Your task to perform on an android device: Search for razer deathadder on target.com, select the first entry, and add it to the cart. Image 0: 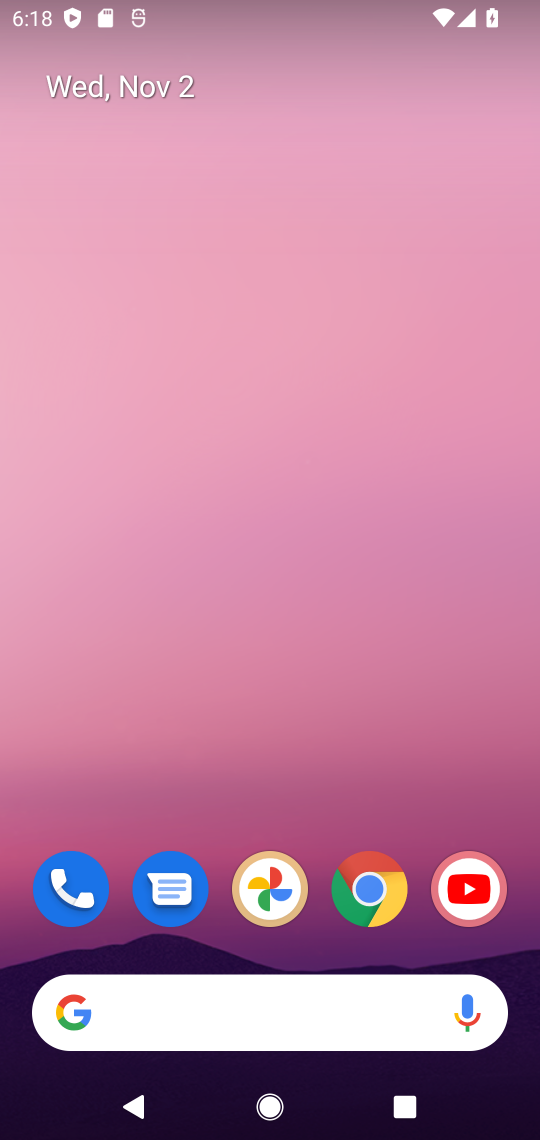
Step 0: click (377, 902)
Your task to perform on an android device: Search for razer deathadder on target.com, select the first entry, and add it to the cart. Image 1: 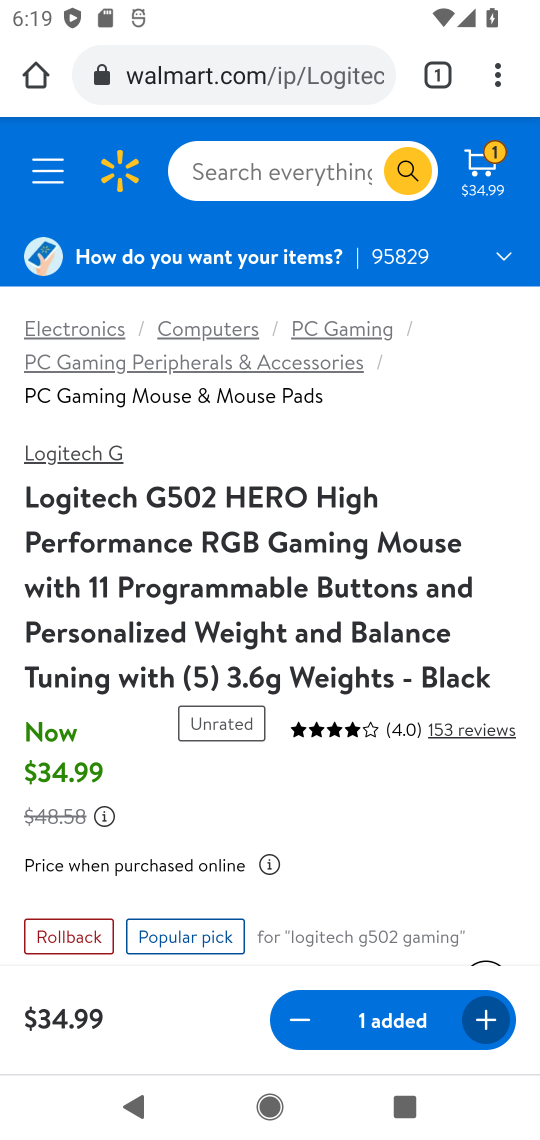
Step 1: click (285, 73)
Your task to perform on an android device: Search for razer deathadder on target.com, select the first entry, and add it to the cart. Image 2: 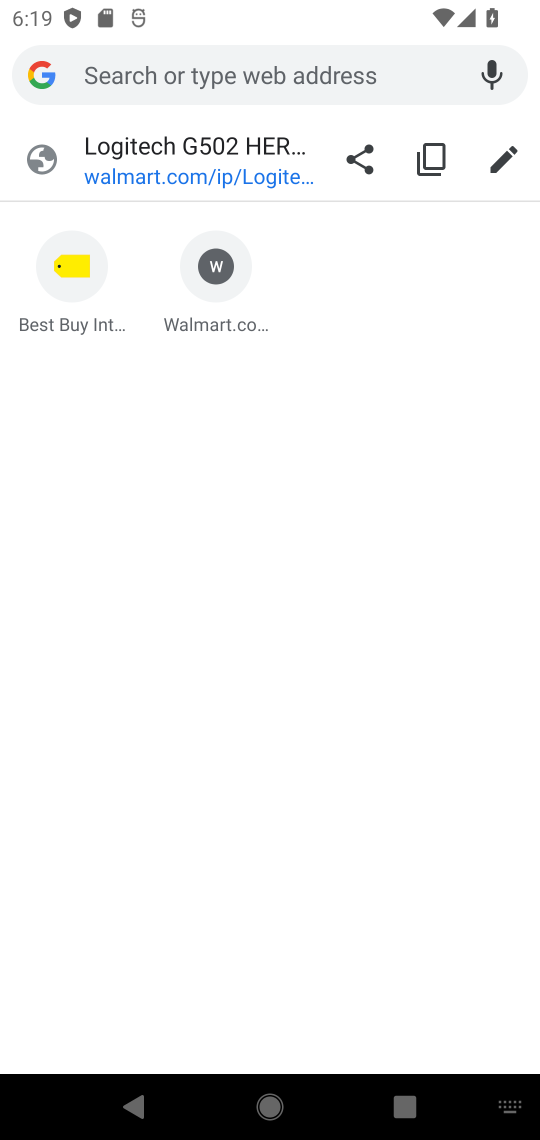
Step 2: press enter
Your task to perform on an android device: Search for razer deathadder on target.com, select the first entry, and add it to the cart. Image 3: 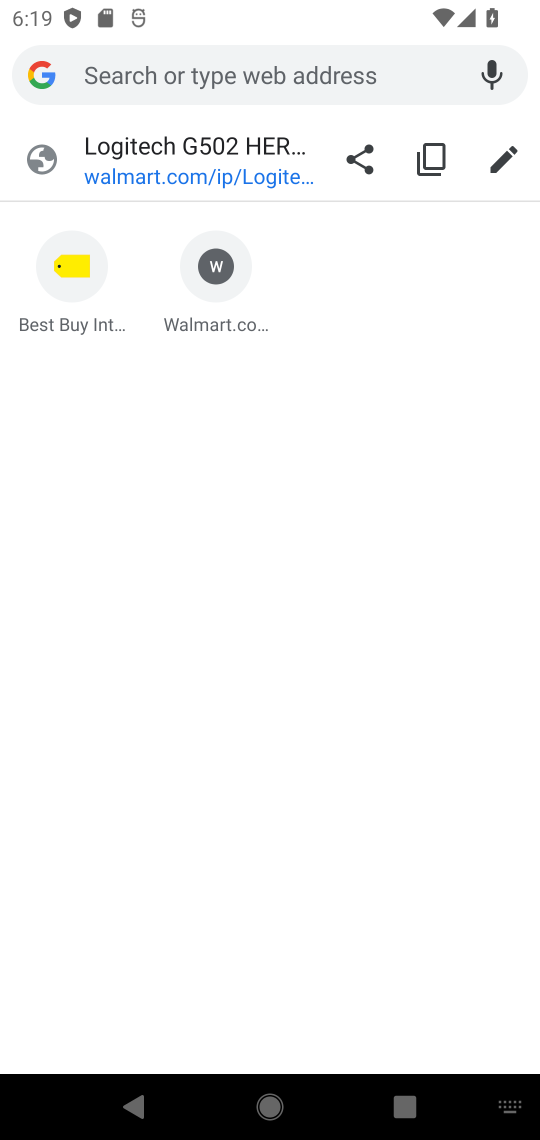
Step 3: type " target.com"
Your task to perform on an android device: Search for razer deathadder on target.com, select the first entry, and add it to the cart. Image 4: 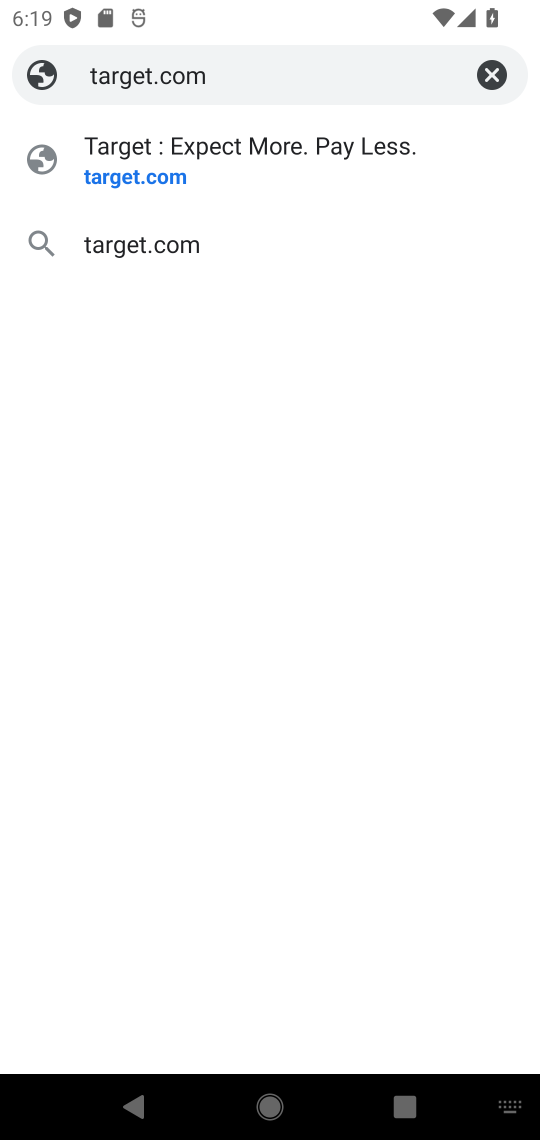
Step 4: click (173, 241)
Your task to perform on an android device: Search for razer deathadder on target.com, select the first entry, and add it to the cart. Image 5: 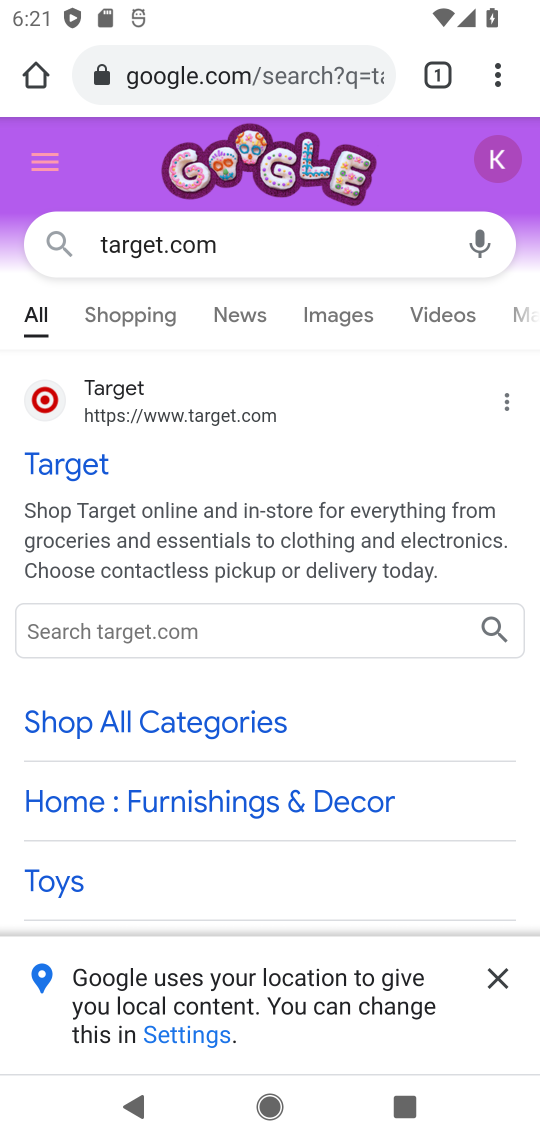
Step 5: click (93, 389)
Your task to perform on an android device: Search for razer deathadder on target.com, select the first entry, and add it to the cart. Image 6: 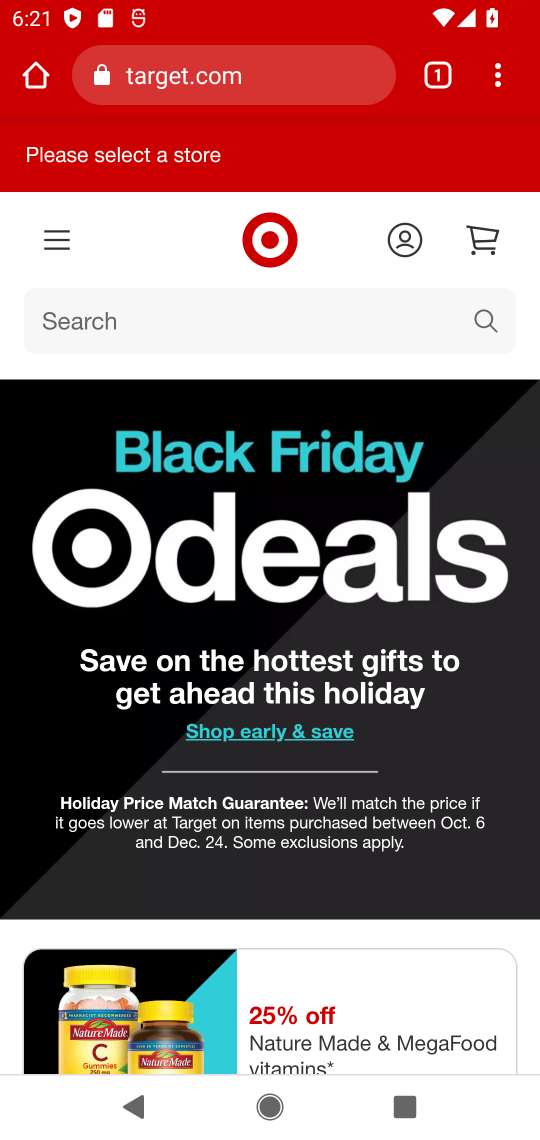
Step 6: click (484, 320)
Your task to perform on an android device: Search for razer deathadder on target.com, select the first entry, and add it to the cart. Image 7: 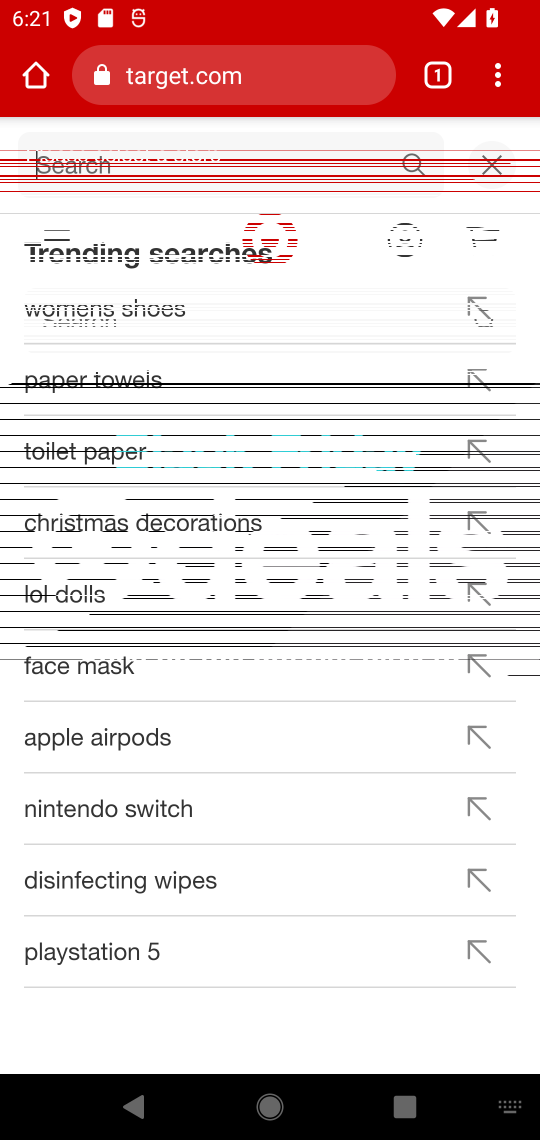
Step 7: type "razer deathadder"
Your task to perform on an android device: Search for razer deathadder on target.com, select the first entry, and add it to the cart. Image 8: 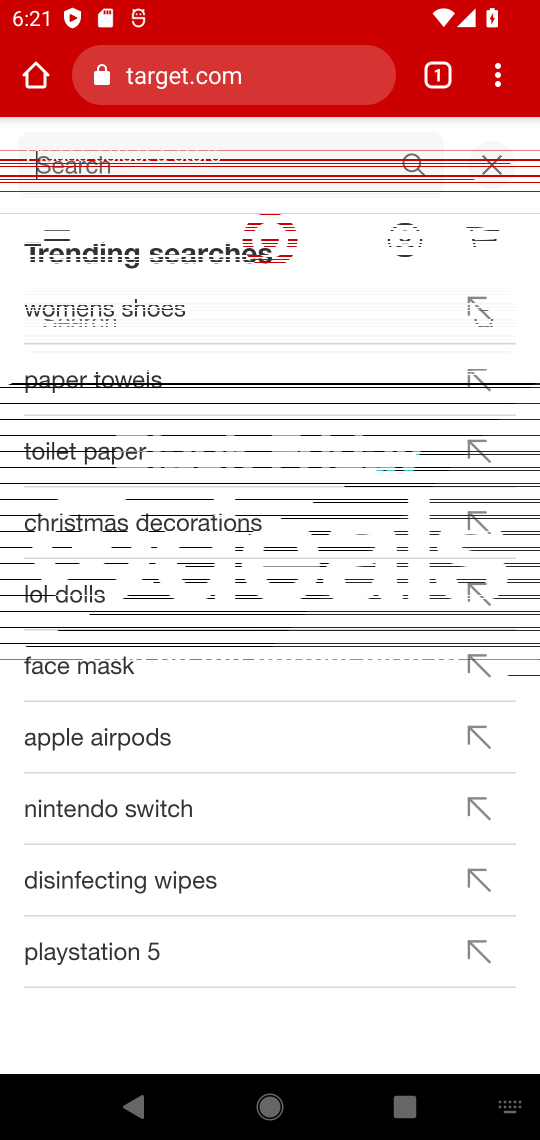
Step 8: press enter
Your task to perform on an android device: Search for razer deathadder on target.com, select the first entry, and add it to the cart. Image 9: 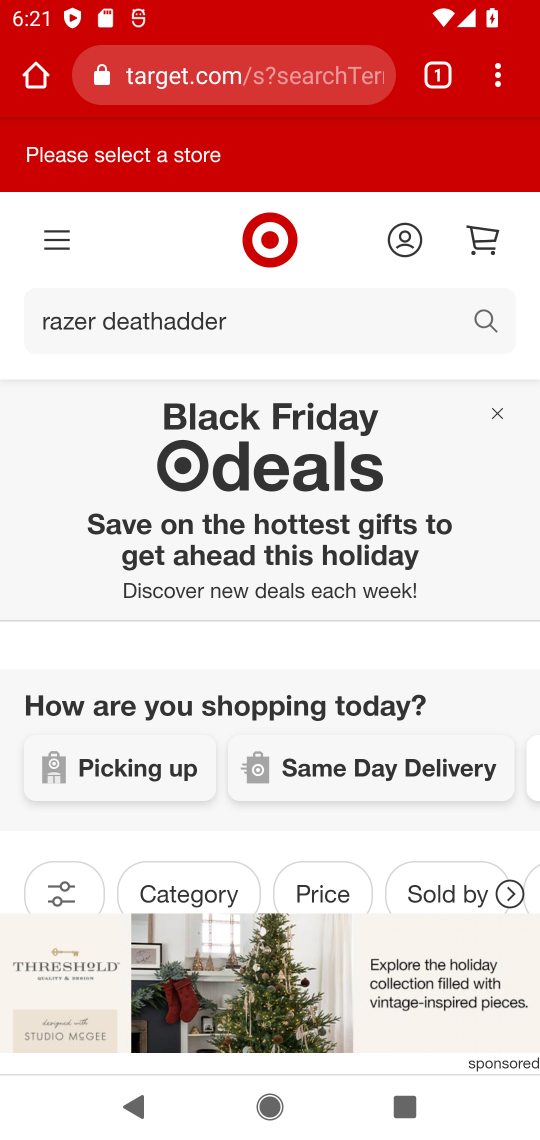
Step 9: drag from (357, 812) to (304, 410)
Your task to perform on an android device: Search for razer deathadder on target.com, select the first entry, and add it to the cart. Image 10: 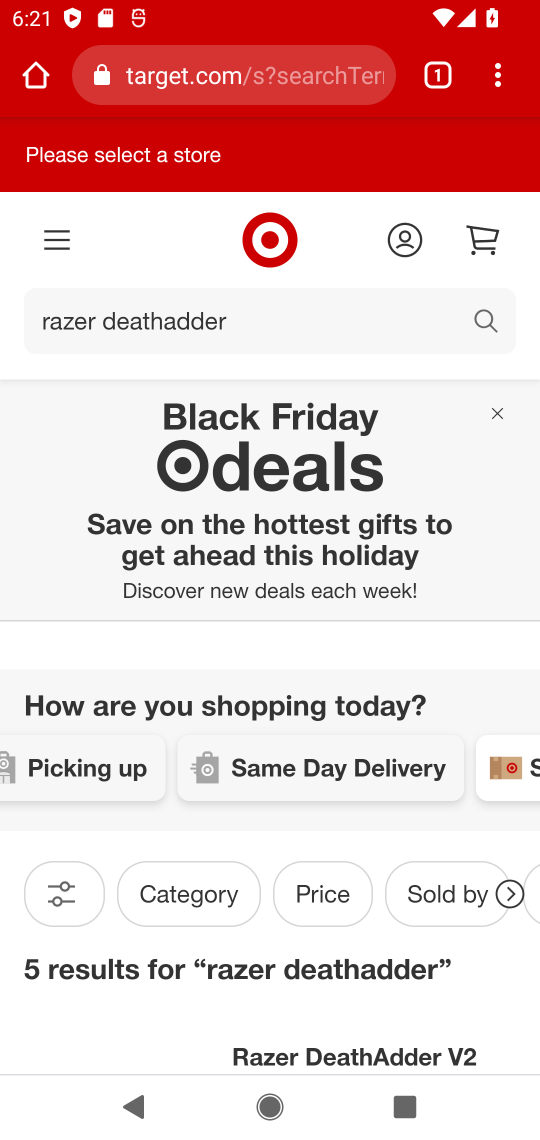
Step 10: drag from (342, 964) to (374, 548)
Your task to perform on an android device: Search for razer deathadder on target.com, select the first entry, and add it to the cart. Image 11: 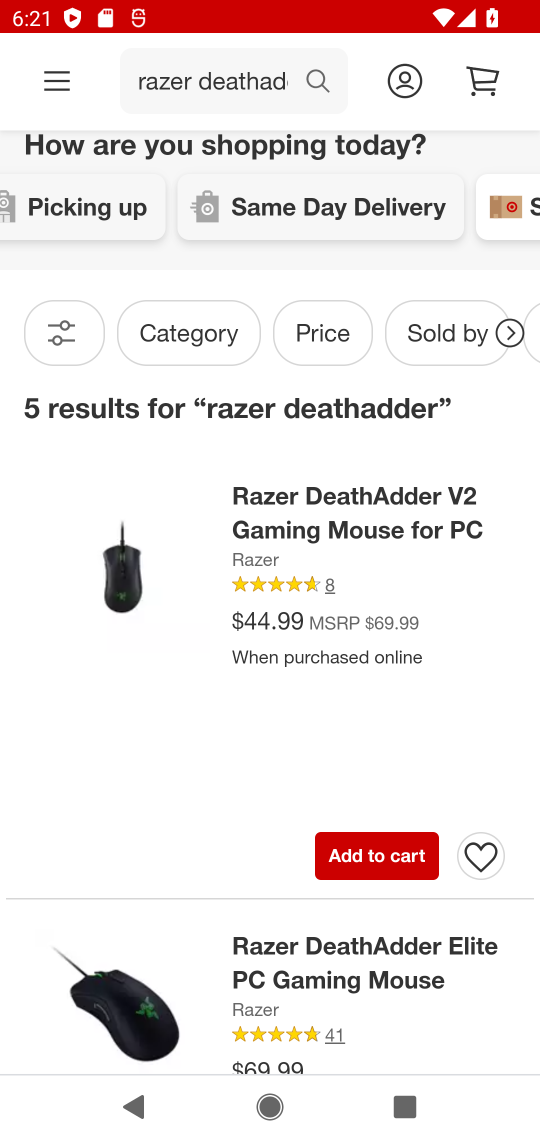
Step 11: click (103, 553)
Your task to perform on an android device: Search for razer deathadder on target.com, select the first entry, and add it to the cart. Image 12: 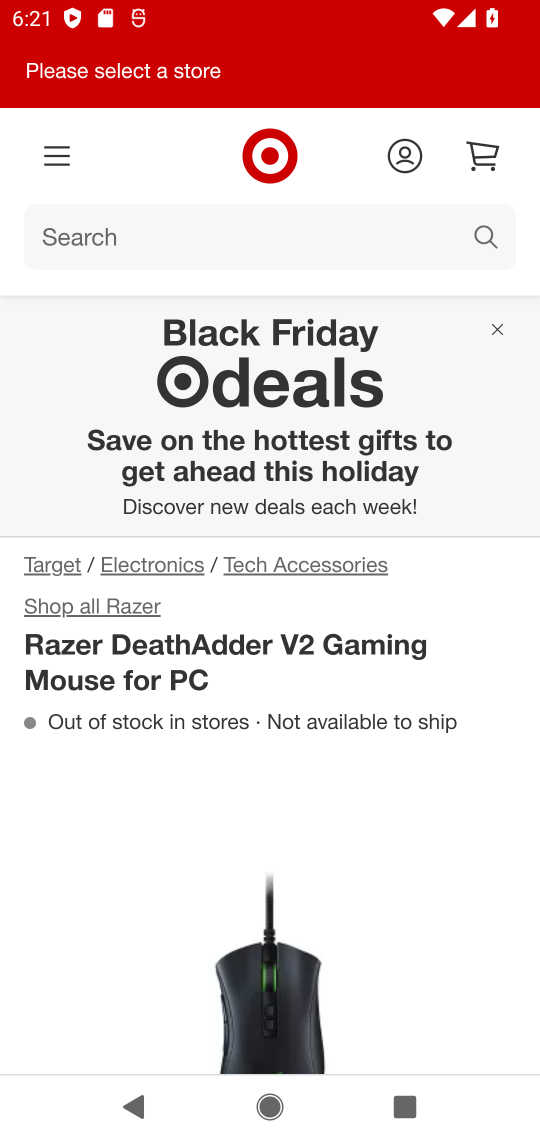
Step 12: drag from (397, 784) to (380, 461)
Your task to perform on an android device: Search for razer deathadder on target.com, select the first entry, and add it to the cart. Image 13: 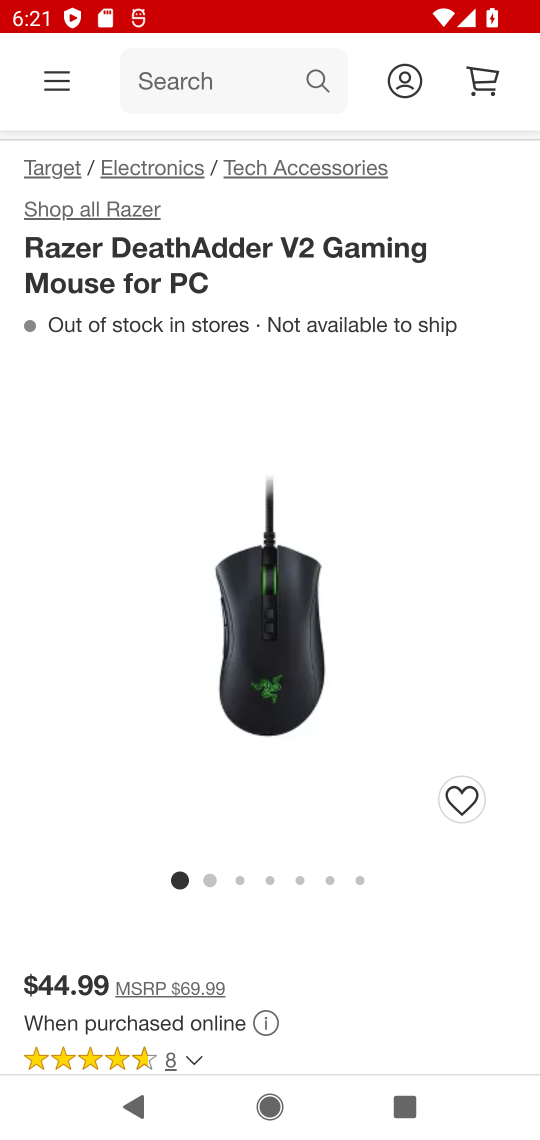
Step 13: drag from (374, 613) to (421, 376)
Your task to perform on an android device: Search for razer deathadder on target.com, select the first entry, and add it to the cart. Image 14: 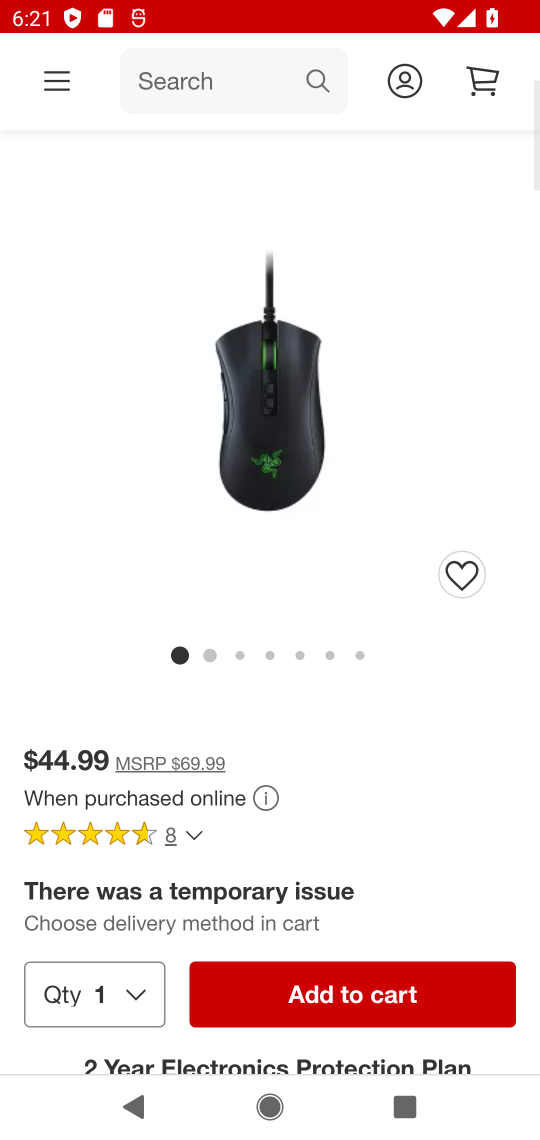
Step 14: drag from (408, 790) to (406, 581)
Your task to perform on an android device: Search for razer deathadder on target.com, select the first entry, and add it to the cart. Image 15: 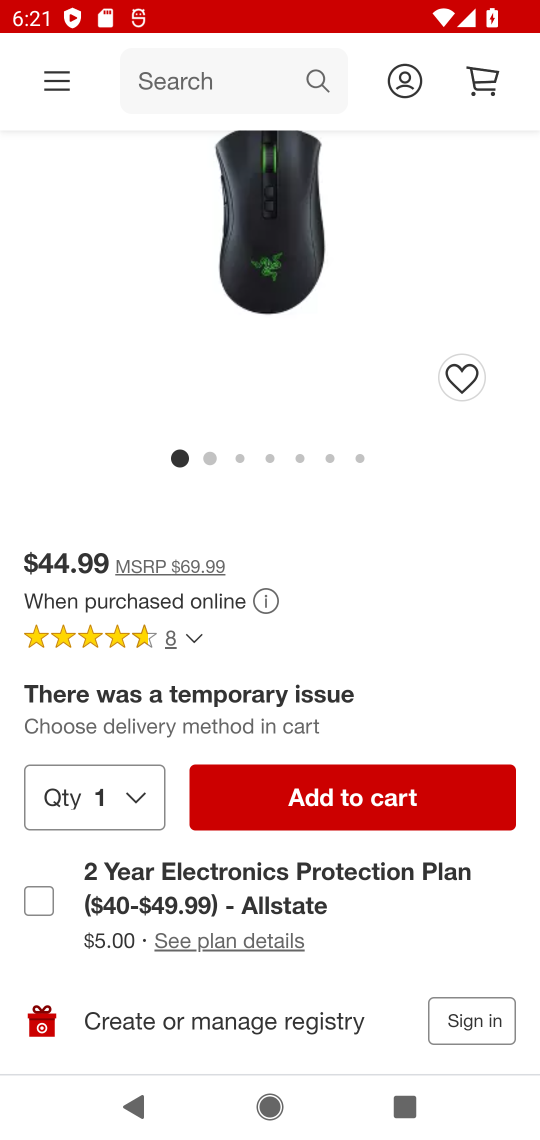
Step 15: click (414, 809)
Your task to perform on an android device: Search for razer deathadder on target.com, select the first entry, and add it to the cart. Image 16: 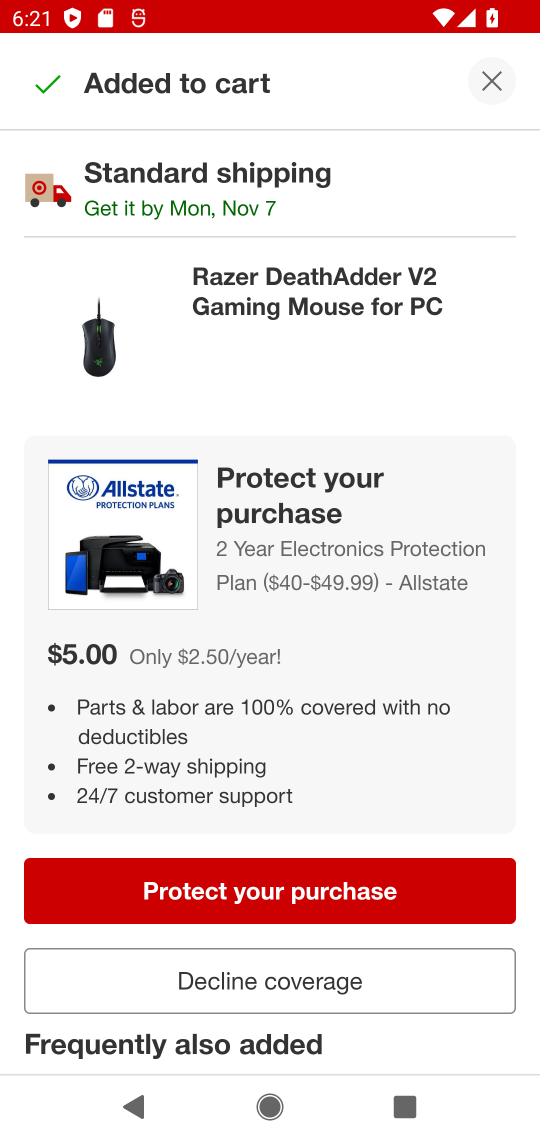
Step 16: task complete